Your task to perform on an android device: Open Chrome and go to settings Image 0: 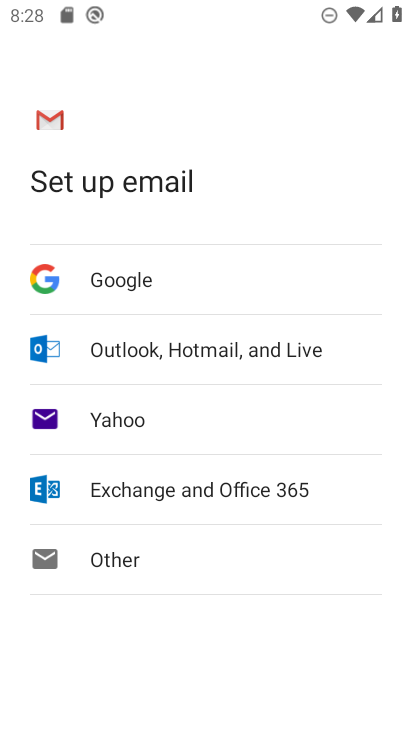
Step 0: press home button
Your task to perform on an android device: Open Chrome and go to settings Image 1: 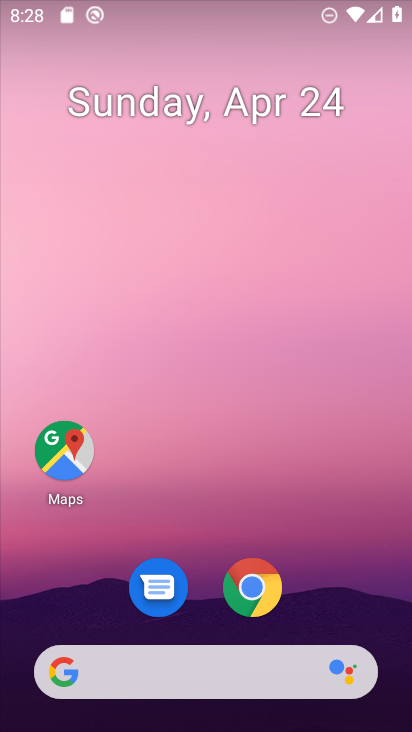
Step 1: drag from (373, 569) to (370, 112)
Your task to perform on an android device: Open Chrome and go to settings Image 2: 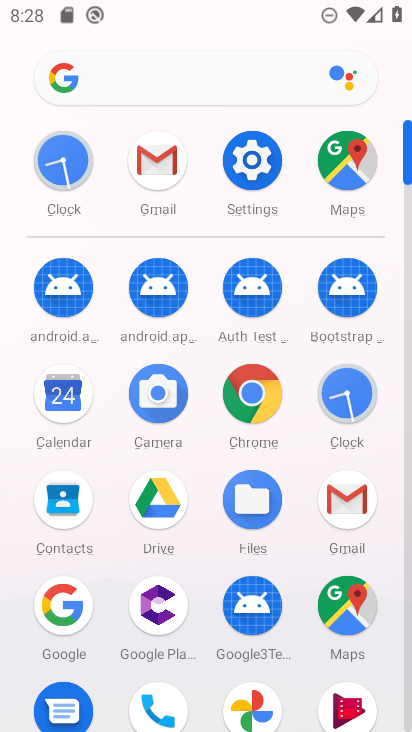
Step 2: click (267, 391)
Your task to perform on an android device: Open Chrome and go to settings Image 3: 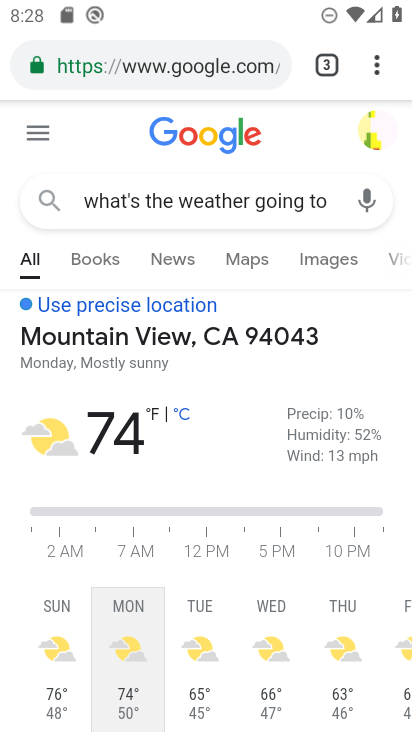
Step 3: click (182, 200)
Your task to perform on an android device: Open Chrome and go to settings Image 4: 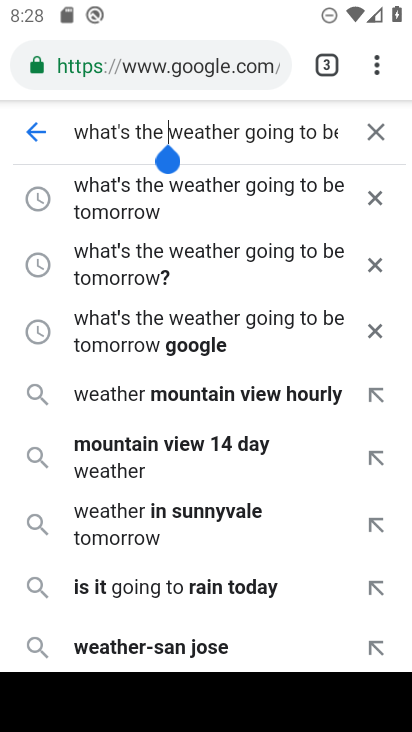
Step 4: click (375, 124)
Your task to perform on an android device: Open Chrome and go to settings Image 5: 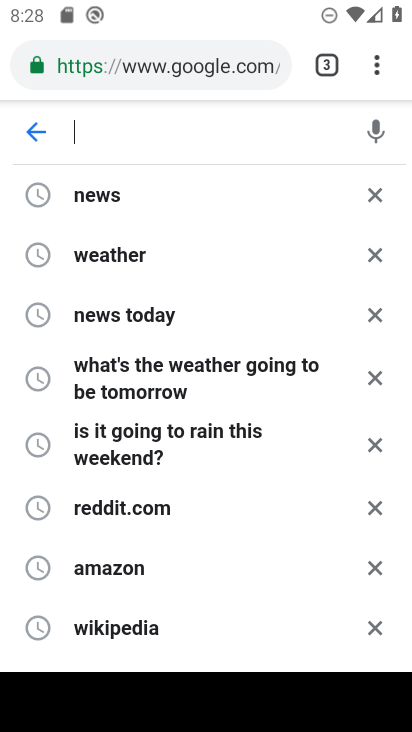
Step 5: task complete